Your task to perform on an android device: What's the news in Myanmar? Image 0: 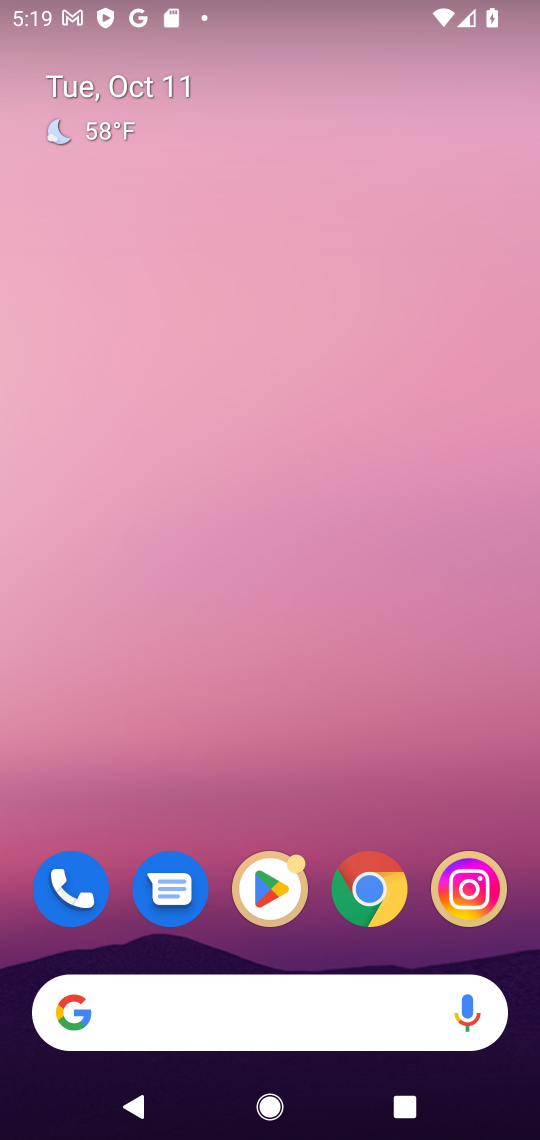
Step 0: drag from (201, 965) to (263, 162)
Your task to perform on an android device: What's the news in Myanmar? Image 1: 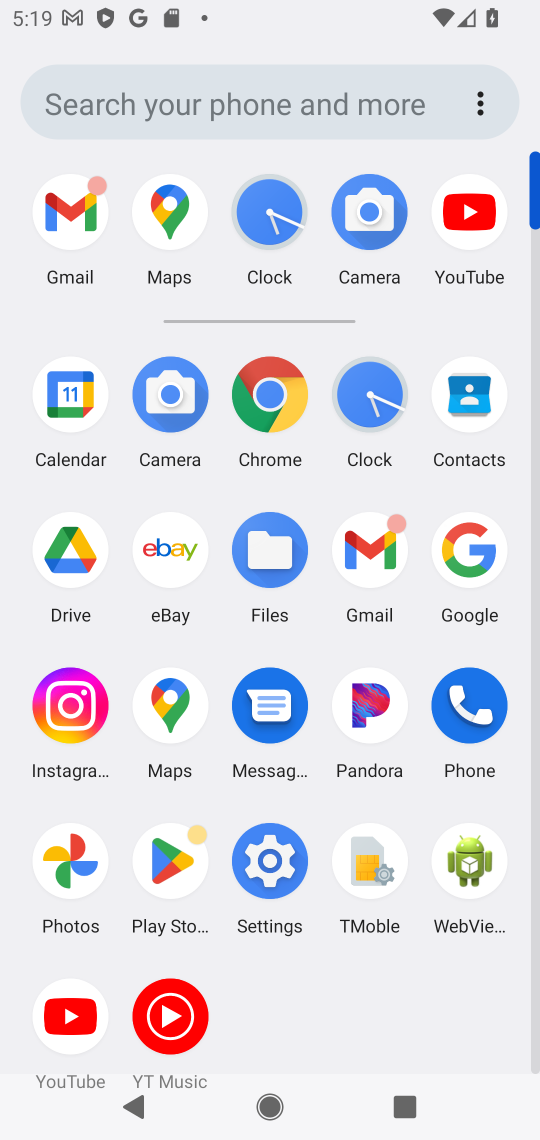
Step 1: click (466, 536)
Your task to perform on an android device: What's the news in Myanmar? Image 2: 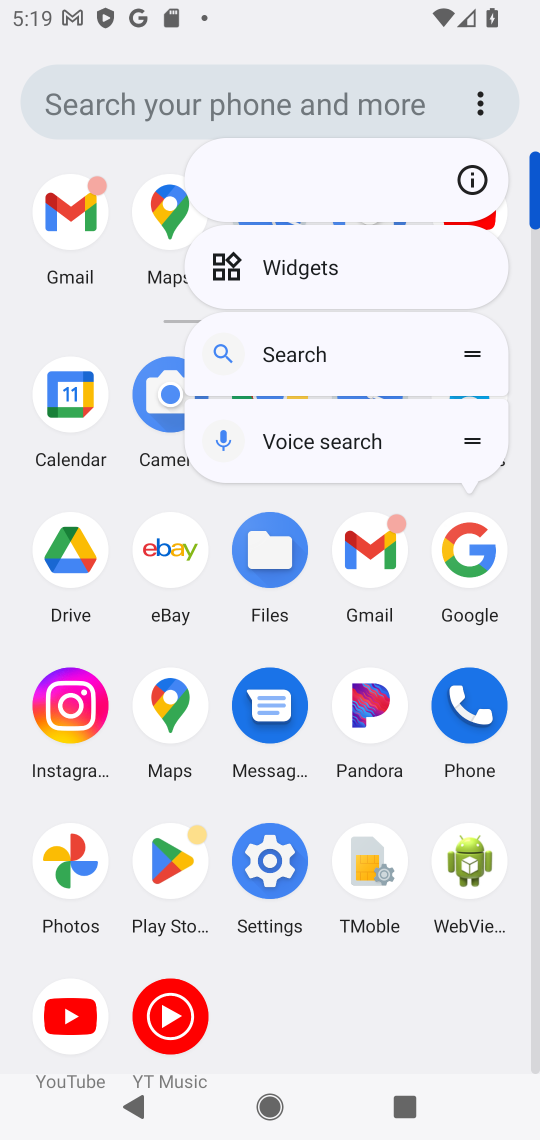
Step 2: click (466, 536)
Your task to perform on an android device: What's the news in Myanmar? Image 3: 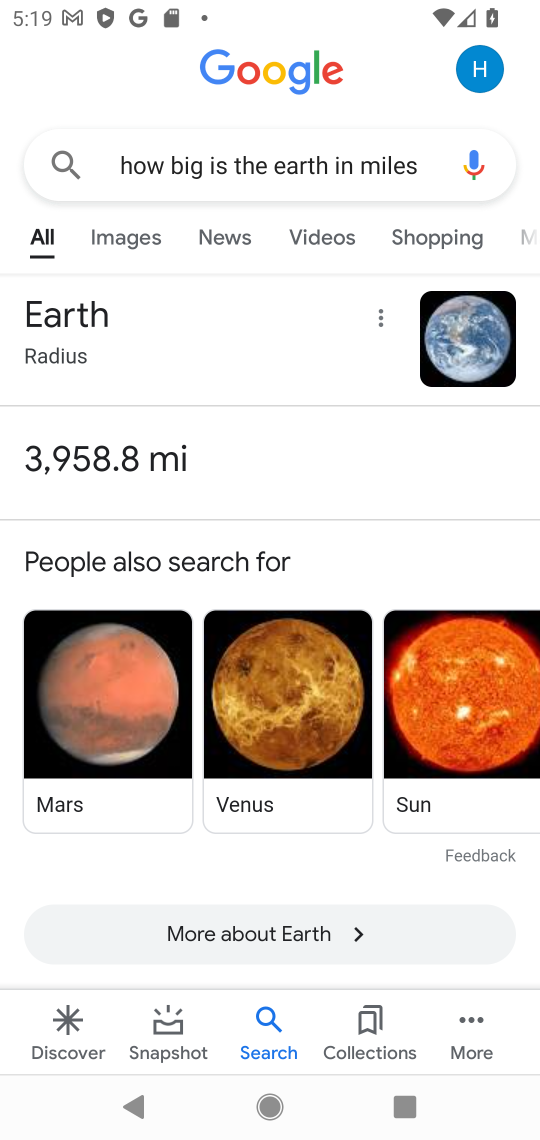
Step 3: click (267, 171)
Your task to perform on an android device: What's the news in Myanmar? Image 4: 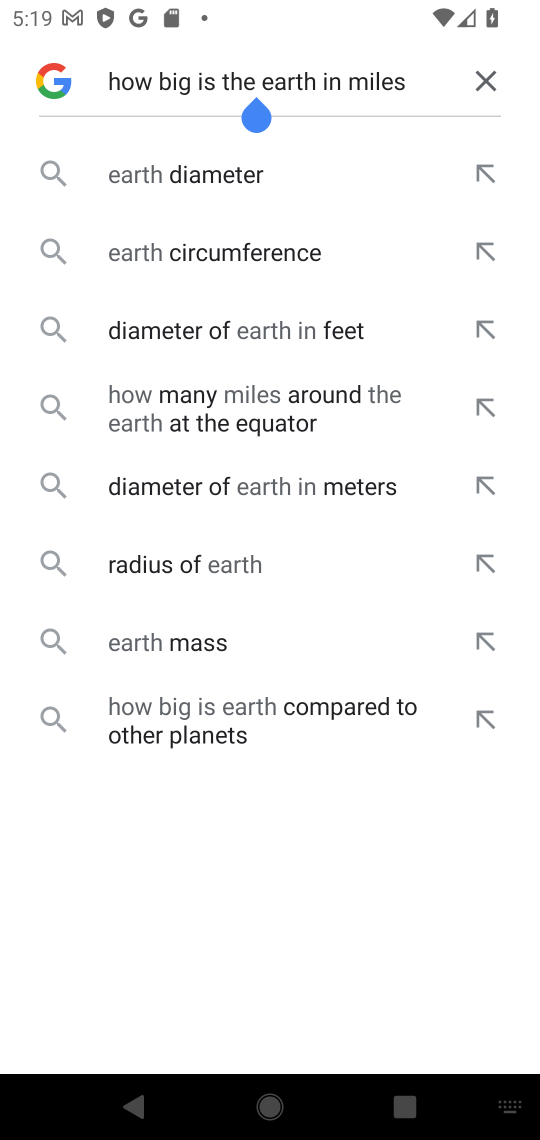
Step 4: click (483, 77)
Your task to perform on an android device: What's the news in Myanmar? Image 5: 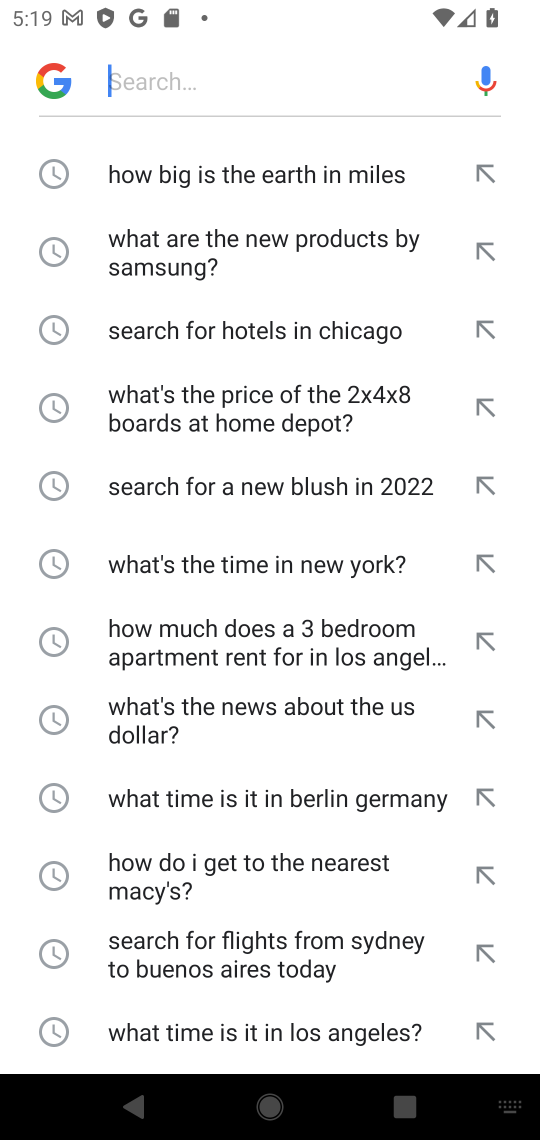
Step 5: click (227, 81)
Your task to perform on an android device: What's the news in Myanmar? Image 6: 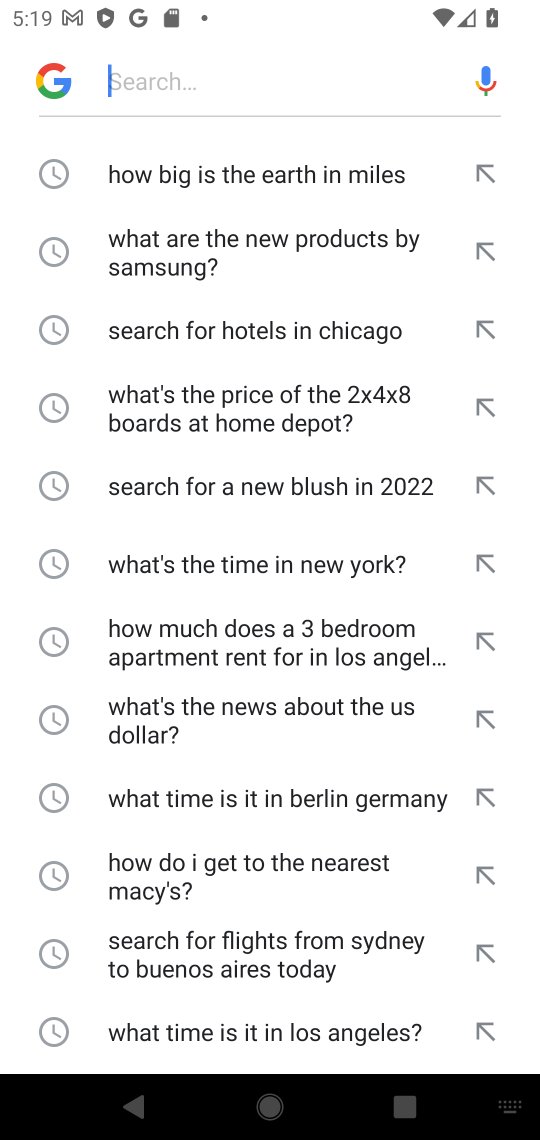
Step 6: type "What's the news in Myanmar "
Your task to perform on an android device: What's the news in Myanmar? Image 7: 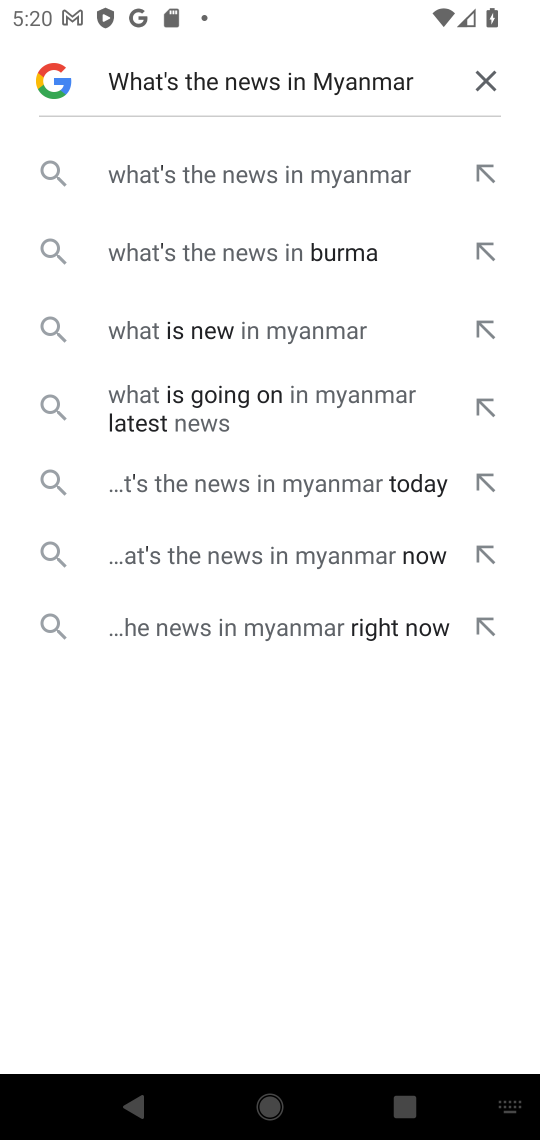
Step 7: click (287, 172)
Your task to perform on an android device: What's the news in Myanmar? Image 8: 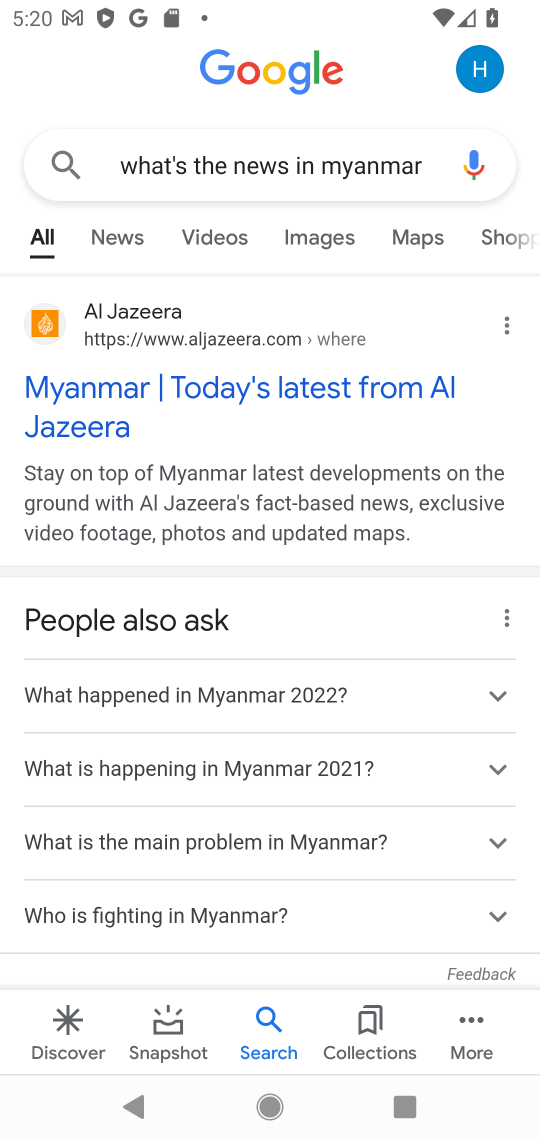
Step 8: click (100, 408)
Your task to perform on an android device: What's the news in Myanmar? Image 9: 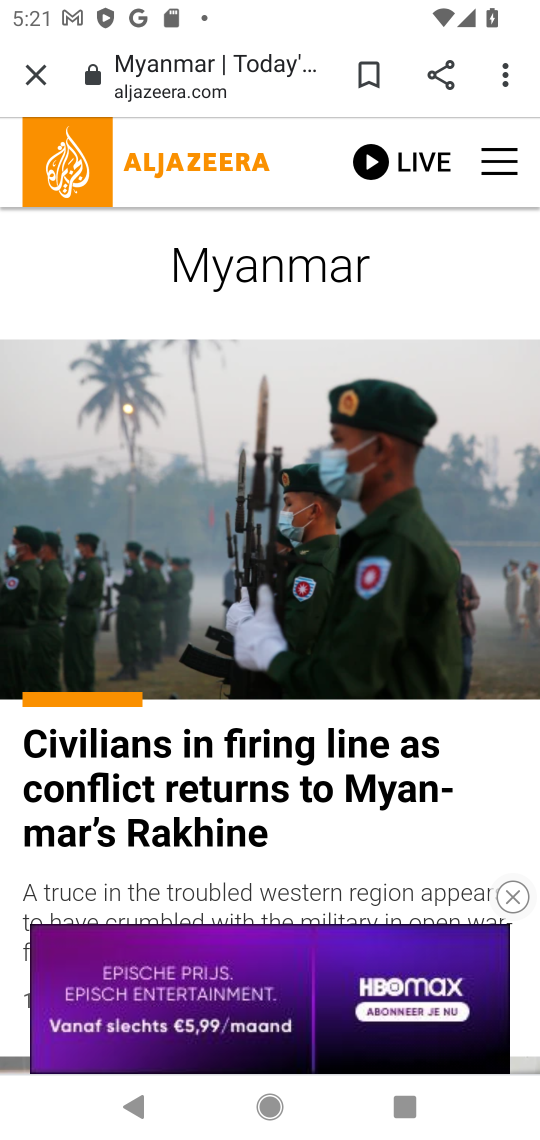
Step 9: task complete